Your task to perform on an android device: change notification settings in the gmail app Image 0: 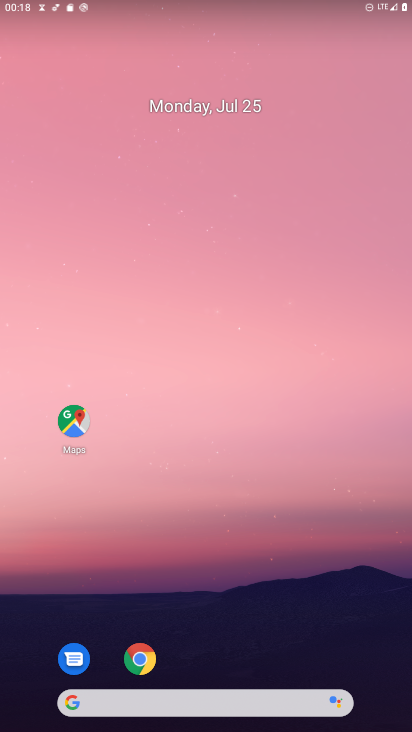
Step 0: drag from (231, 633) to (229, 41)
Your task to perform on an android device: change notification settings in the gmail app Image 1: 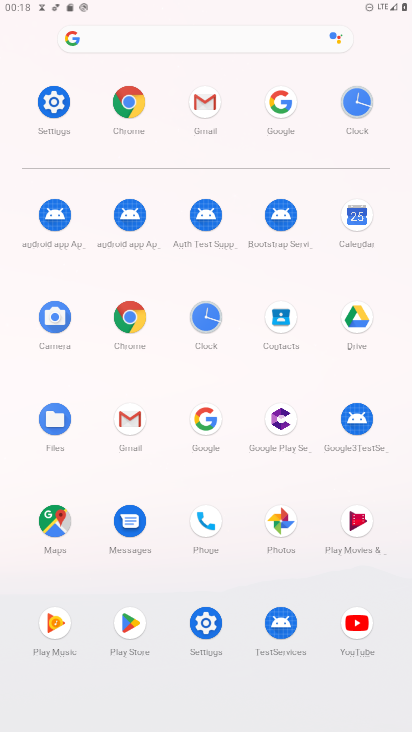
Step 1: click (122, 412)
Your task to perform on an android device: change notification settings in the gmail app Image 2: 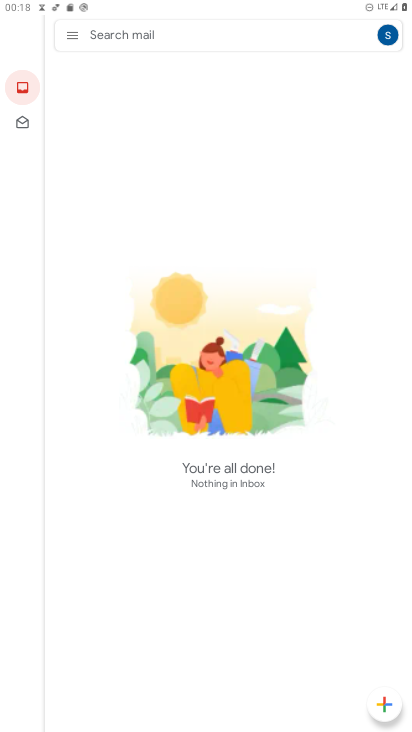
Step 2: click (60, 33)
Your task to perform on an android device: change notification settings in the gmail app Image 3: 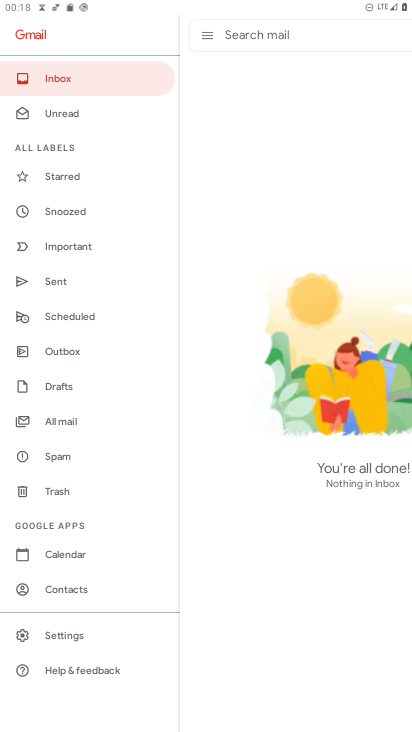
Step 3: click (32, 635)
Your task to perform on an android device: change notification settings in the gmail app Image 4: 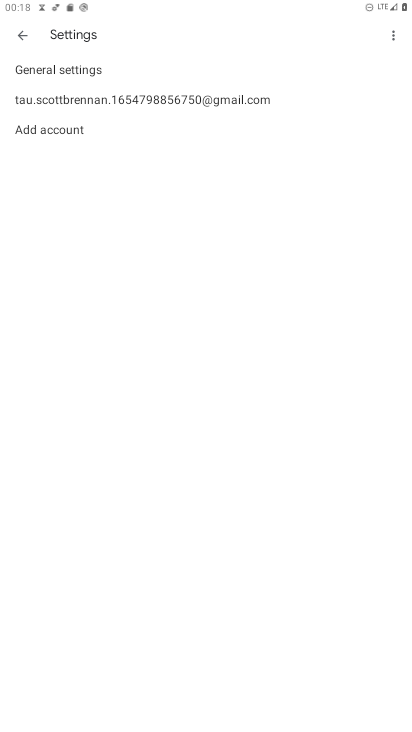
Step 4: click (115, 104)
Your task to perform on an android device: change notification settings in the gmail app Image 5: 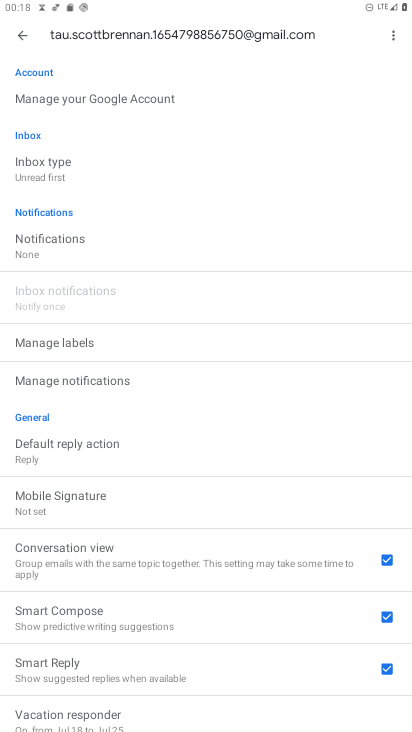
Step 5: click (53, 240)
Your task to perform on an android device: change notification settings in the gmail app Image 6: 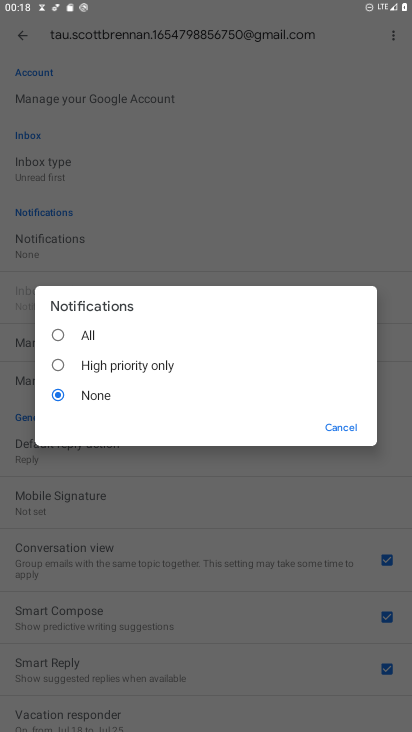
Step 6: click (71, 332)
Your task to perform on an android device: change notification settings in the gmail app Image 7: 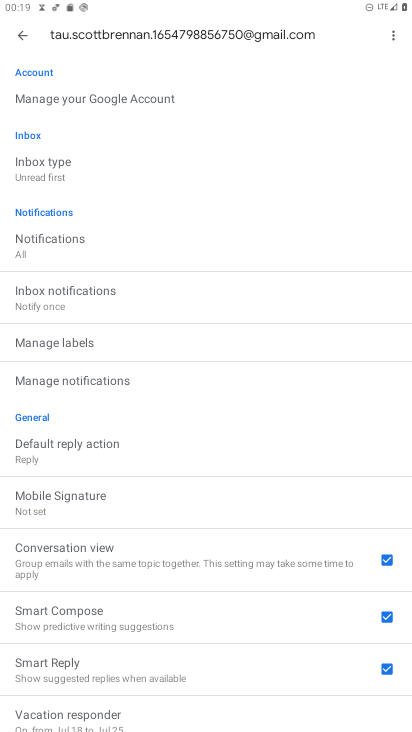
Step 7: task complete